Your task to perform on an android device: What's the weather? Image 0: 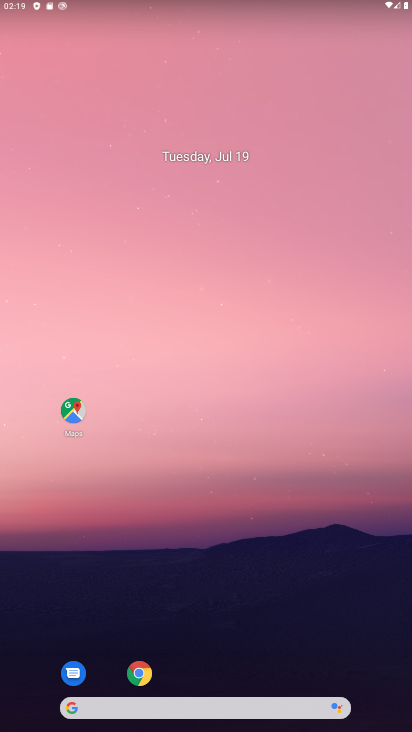
Step 0: drag from (248, 700) to (306, 173)
Your task to perform on an android device: What's the weather? Image 1: 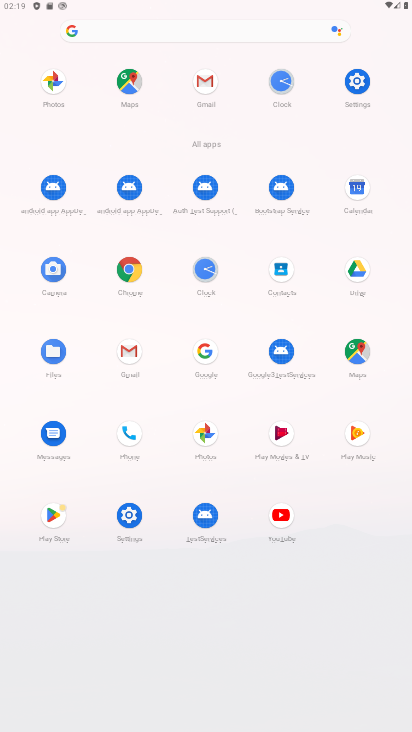
Step 1: click (139, 266)
Your task to perform on an android device: What's the weather? Image 2: 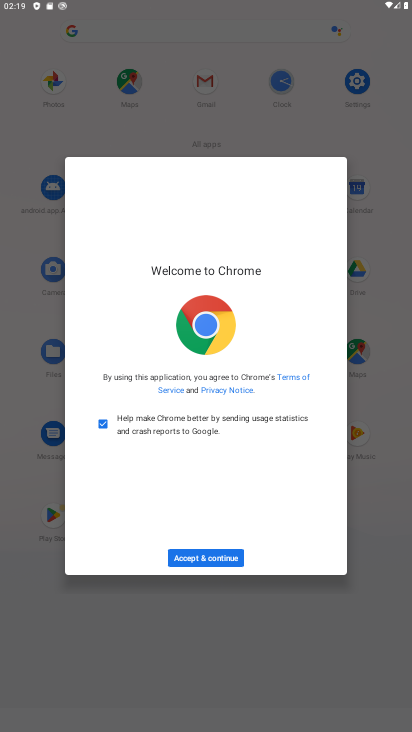
Step 2: click (233, 563)
Your task to perform on an android device: What's the weather? Image 3: 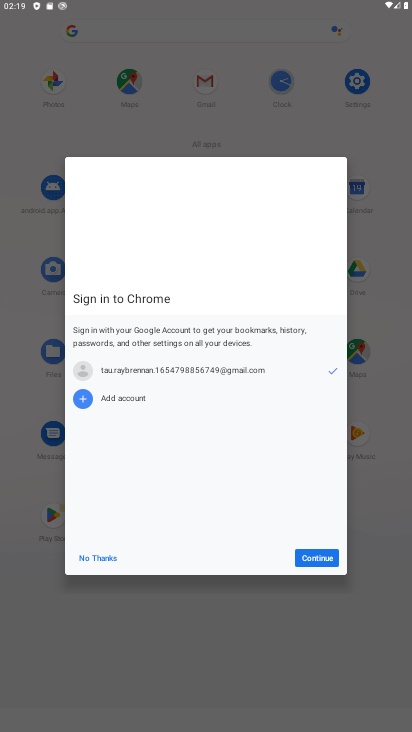
Step 3: click (337, 549)
Your task to perform on an android device: What's the weather? Image 4: 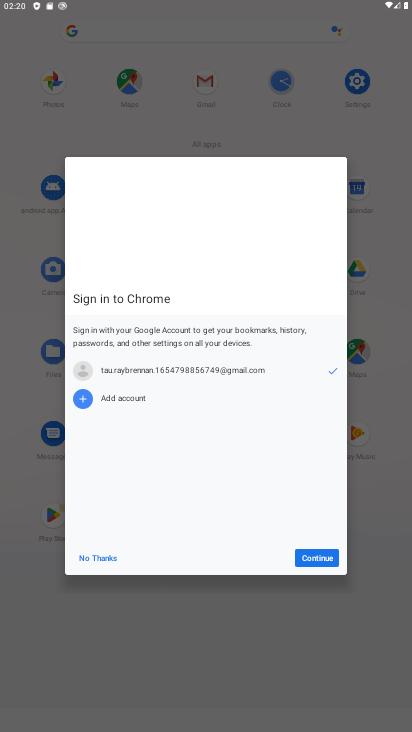
Step 4: click (305, 561)
Your task to perform on an android device: What's the weather? Image 5: 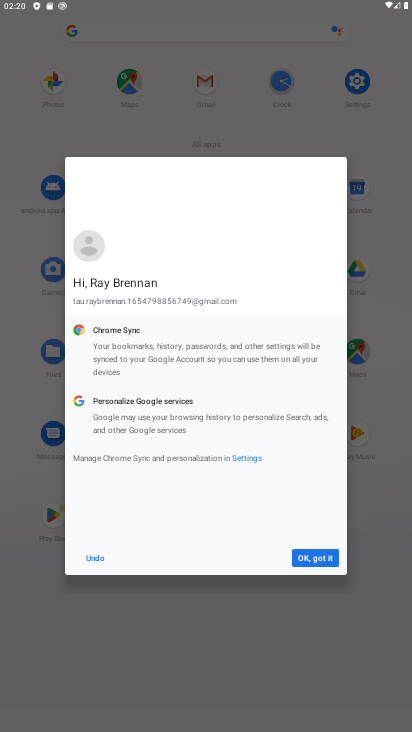
Step 5: click (321, 560)
Your task to perform on an android device: What's the weather? Image 6: 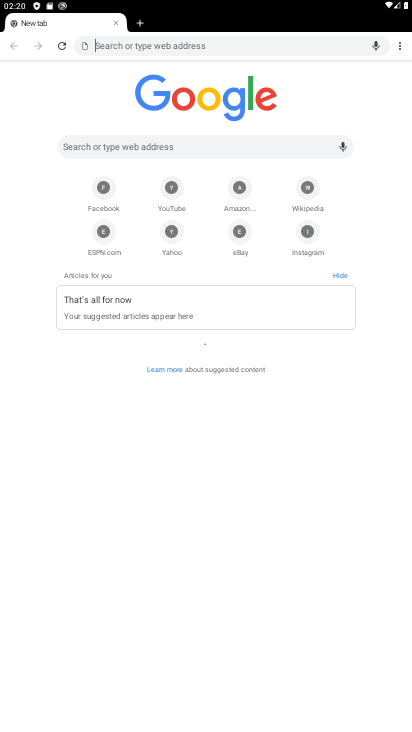
Step 6: click (242, 146)
Your task to perform on an android device: What's the weather? Image 7: 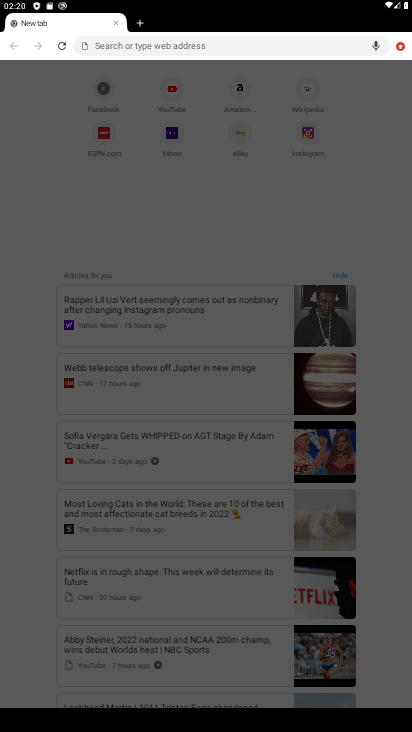
Step 7: type "What's the weather?"
Your task to perform on an android device: What's the weather? Image 8: 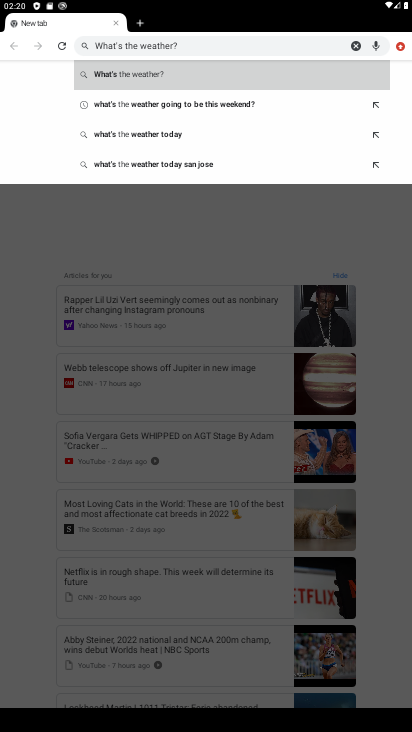
Step 8: click (224, 77)
Your task to perform on an android device: What's the weather? Image 9: 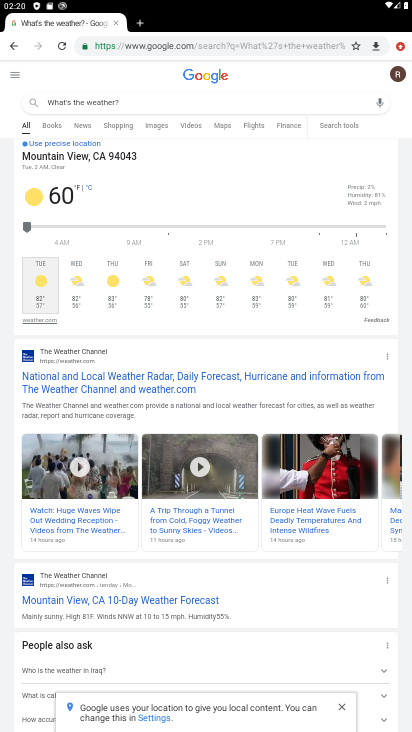
Step 9: task complete